Your task to perform on an android device: Open display settings Image 0: 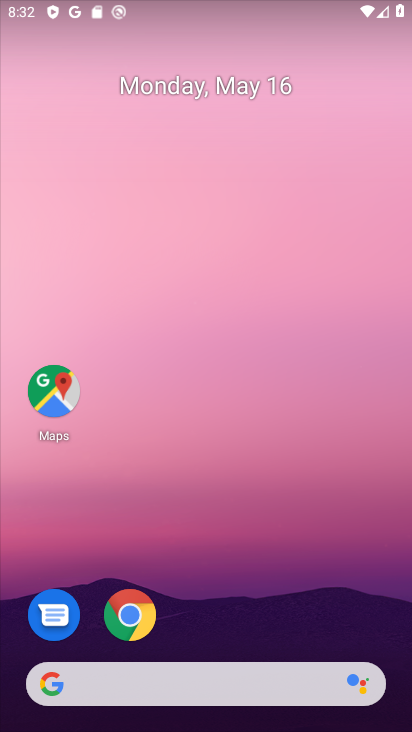
Step 0: press back button
Your task to perform on an android device: Open display settings Image 1: 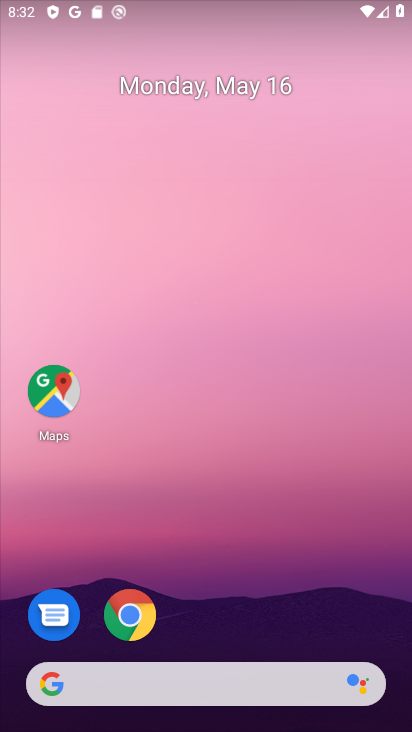
Step 1: press home button
Your task to perform on an android device: Open display settings Image 2: 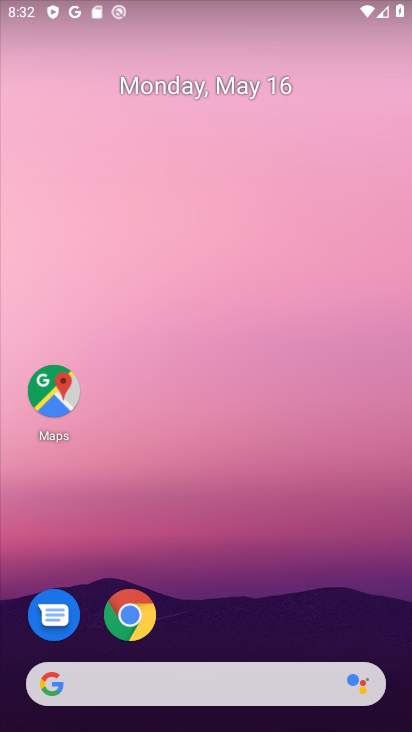
Step 2: drag from (0, 683) to (272, 14)
Your task to perform on an android device: Open display settings Image 3: 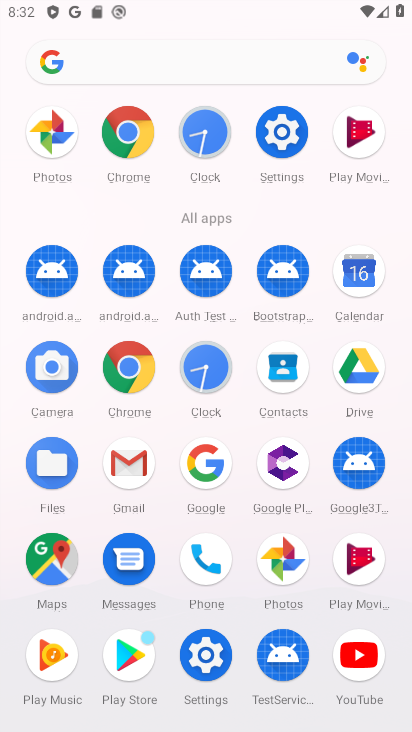
Step 3: click (290, 129)
Your task to perform on an android device: Open display settings Image 4: 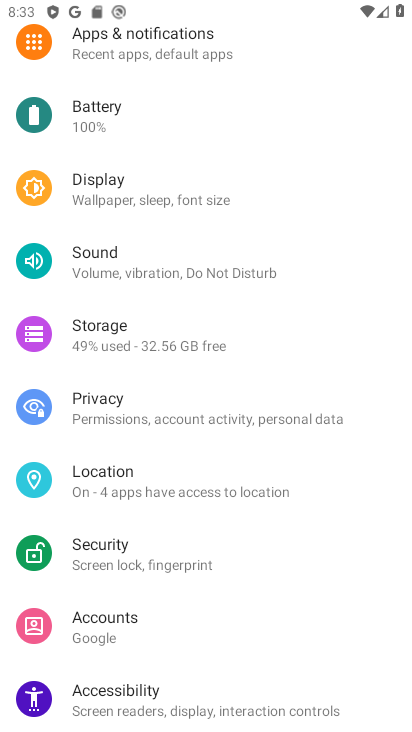
Step 4: click (129, 198)
Your task to perform on an android device: Open display settings Image 5: 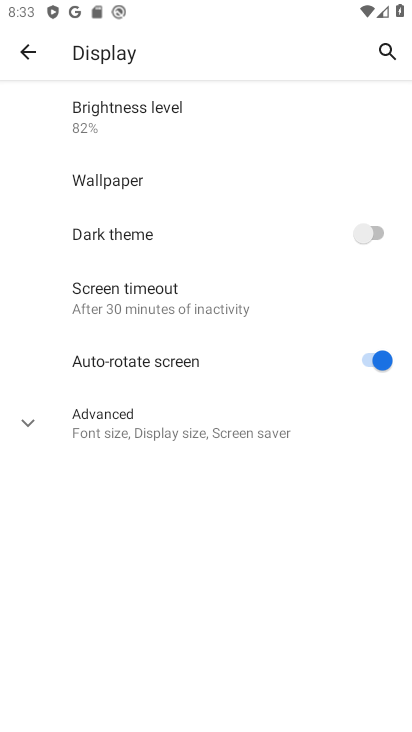
Step 5: task complete